Your task to perform on an android device: change the clock display to analog Image 0: 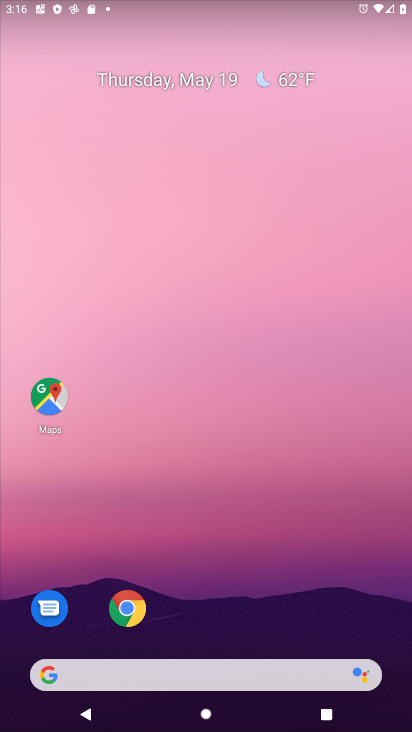
Step 0: drag from (225, 623) to (174, 8)
Your task to perform on an android device: change the clock display to analog Image 1: 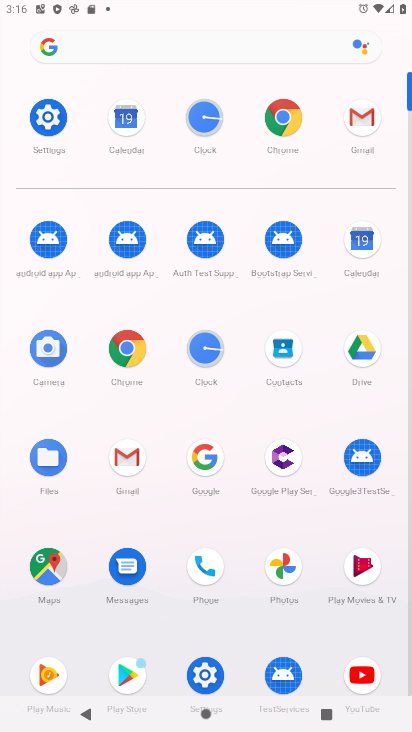
Step 1: click (216, 133)
Your task to perform on an android device: change the clock display to analog Image 2: 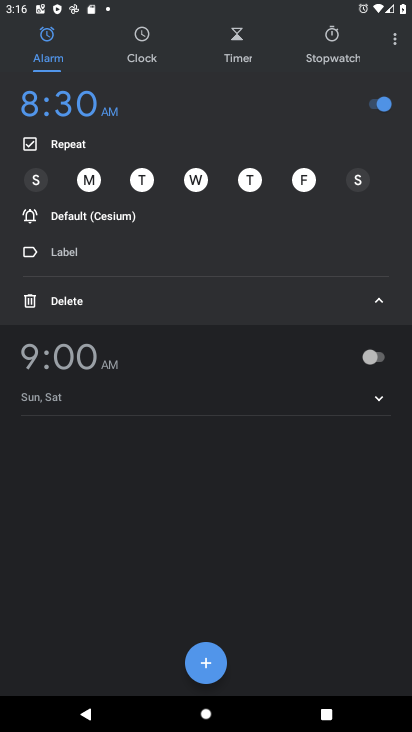
Step 2: click (390, 57)
Your task to perform on an android device: change the clock display to analog Image 3: 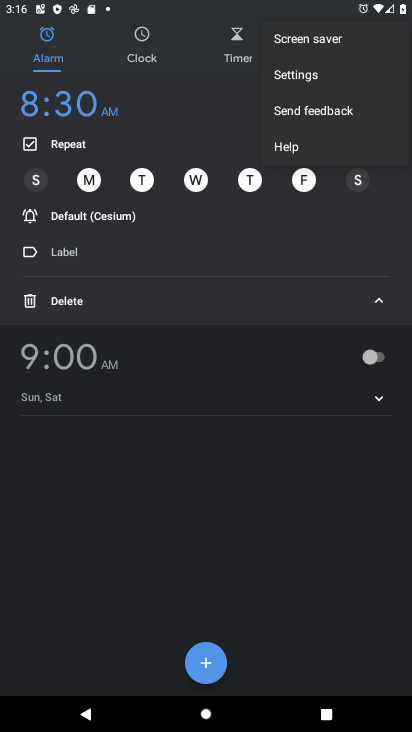
Step 3: click (329, 83)
Your task to perform on an android device: change the clock display to analog Image 4: 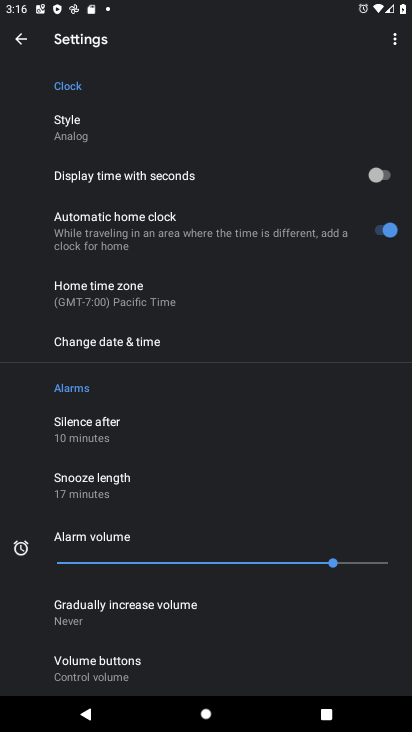
Step 4: task complete